Your task to perform on an android device: change the clock display to analog Image 0: 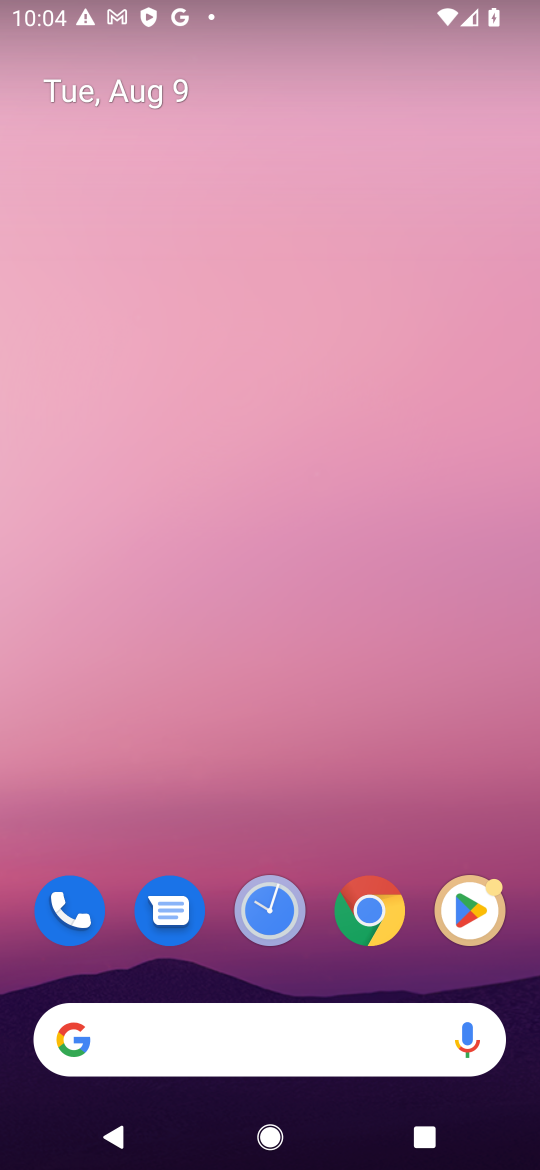
Step 0: drag from (183, 455) to (252, 167)
Your task to perform on an android device: change the clock display to analog Image 1: 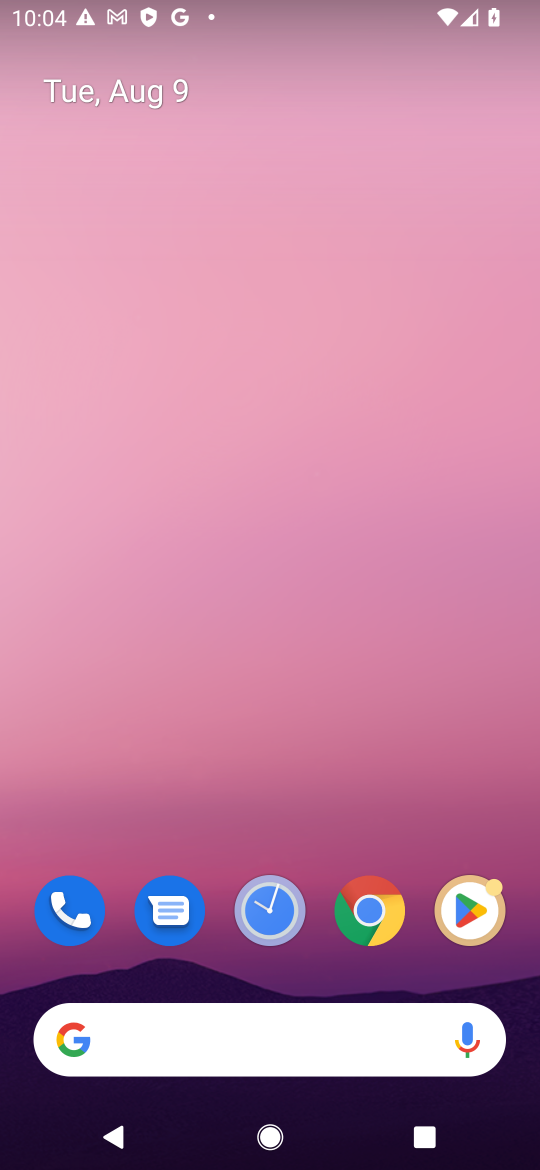
Step 1: drag from (189, 547) to (360, 55)
Your task to perform on an android device: change the clock display to analog Image 2: 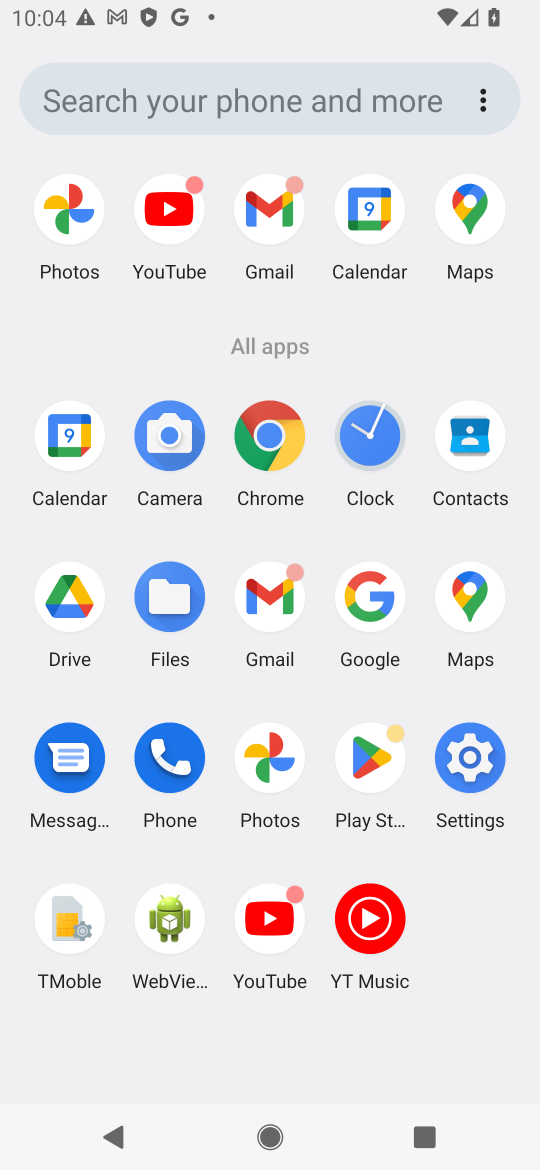
Step 2: click (375, 441)
Your task to perform on an android device: change the clock display to analog Image 3: 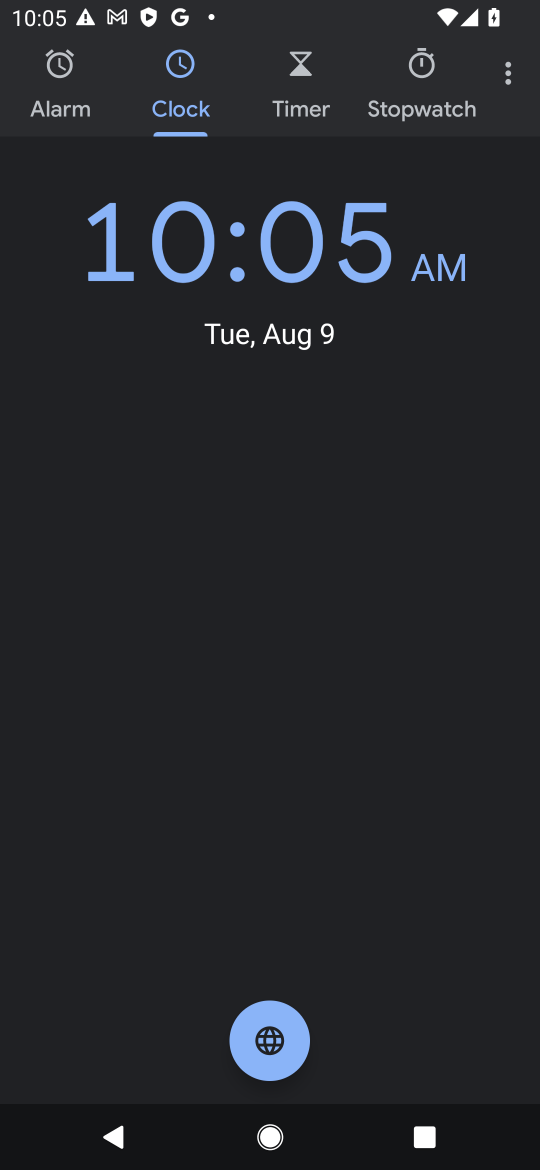
Step 3: click (503, 73)
Your task to perform on an android device: change the clock display to analog Image 4: 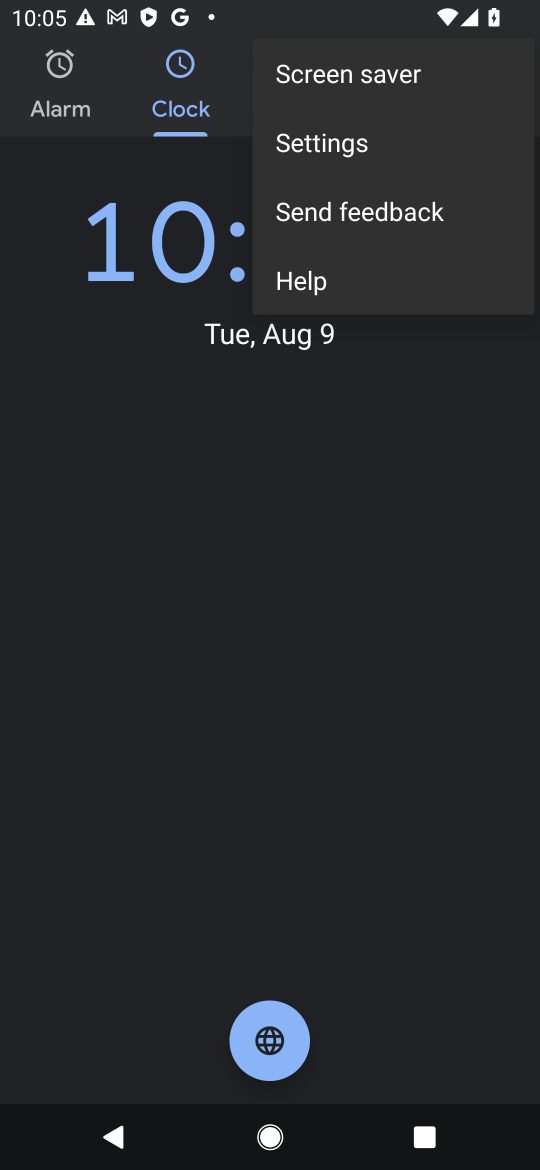
Step 4: click (359, 150)
Your task to perform on an android device: change the clock display to analog Image 5: 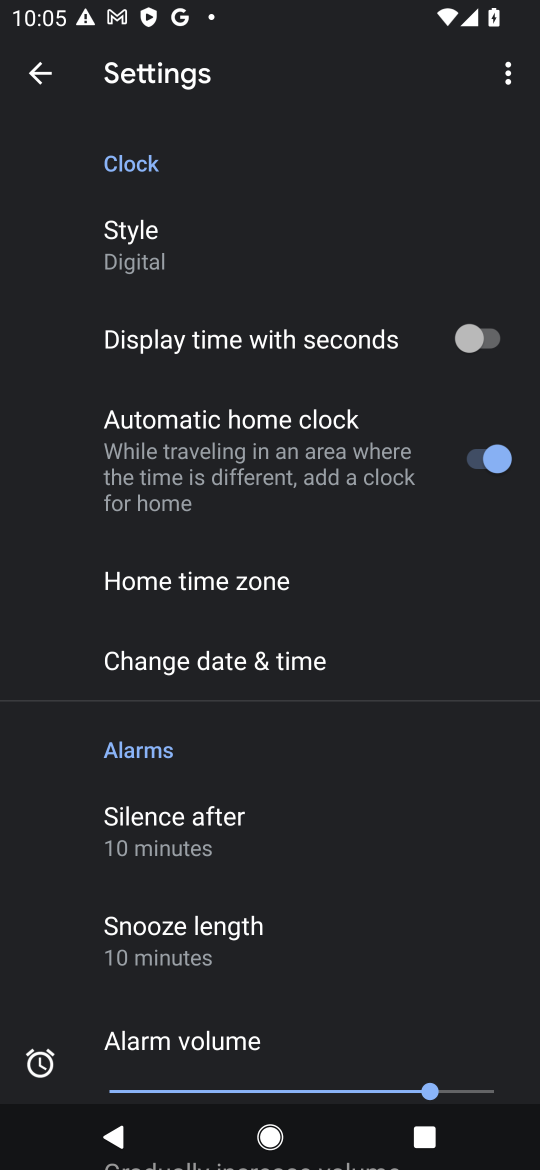
Step 5: click (142, 263)
Your task to perform on an android device: change the clock display to analog Image 6: 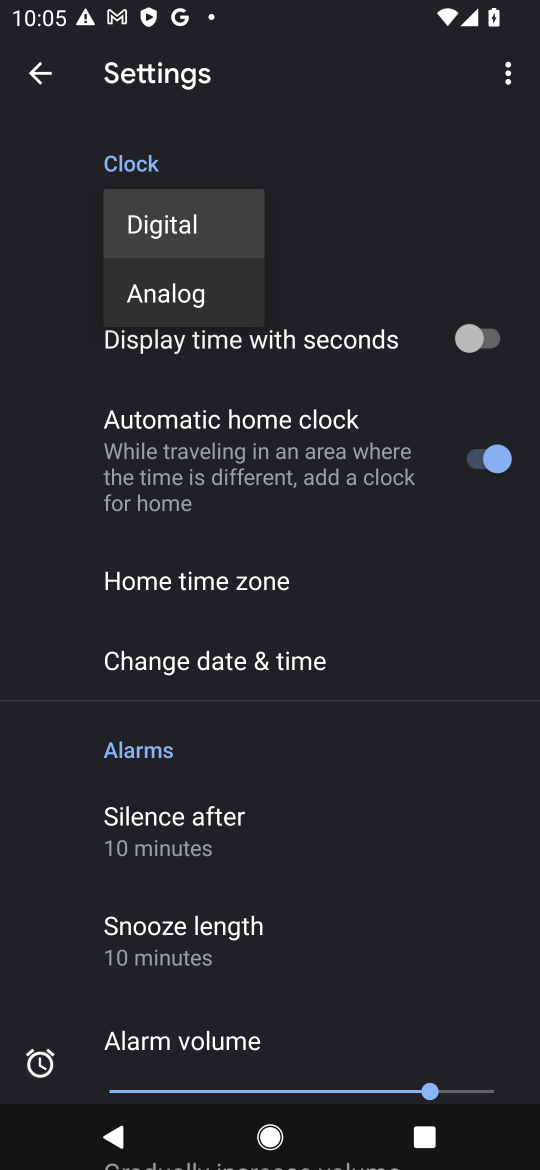
Step 6: click (145, 314)
Your task to perform on an android device: change the clock display to analog Image 7: 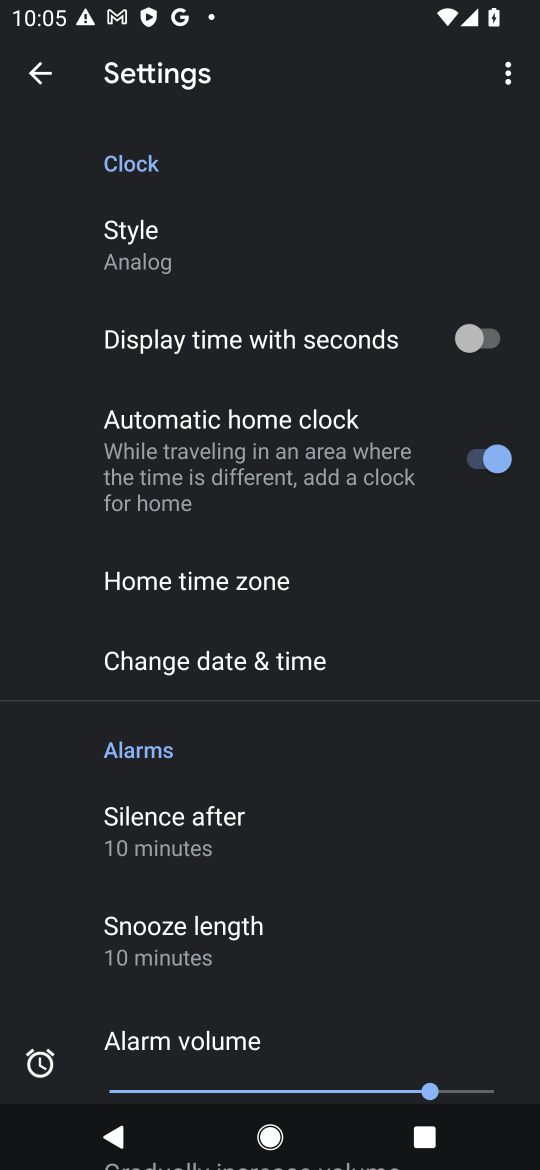
Step 7: task complete